Your task to perform on an android device: Open the phone app and click the voicemail tab. Image 0: 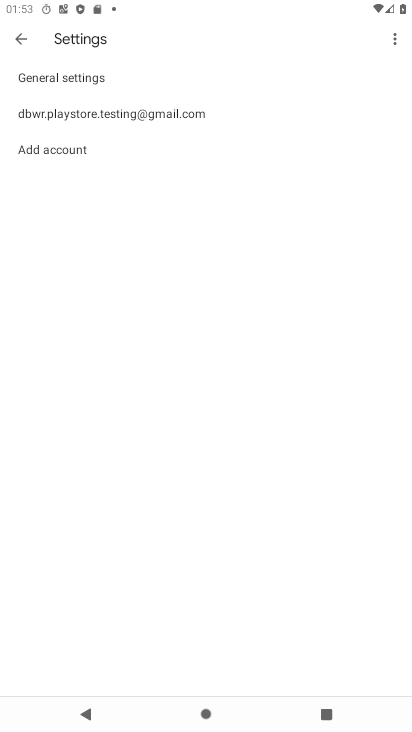
Step 0: press home button
Your task to perform on an android device: Open the phone app and click the voicemail tab. Image 1: 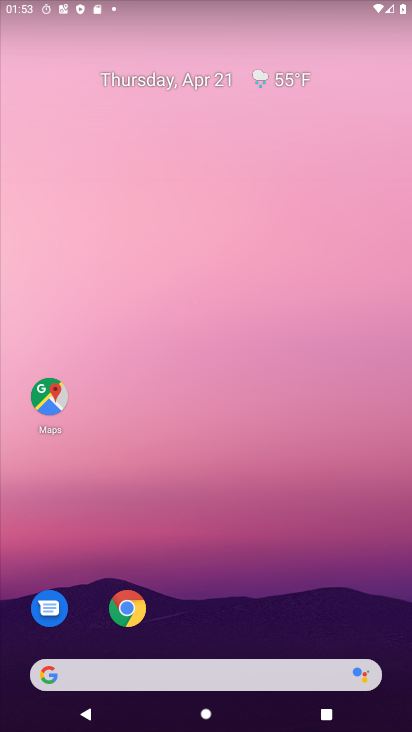
Step 1: drag from (201, 619) to (205, 166)
Your task to perform on an android device: Open the phone app and click the voicemail tab. Image 2: 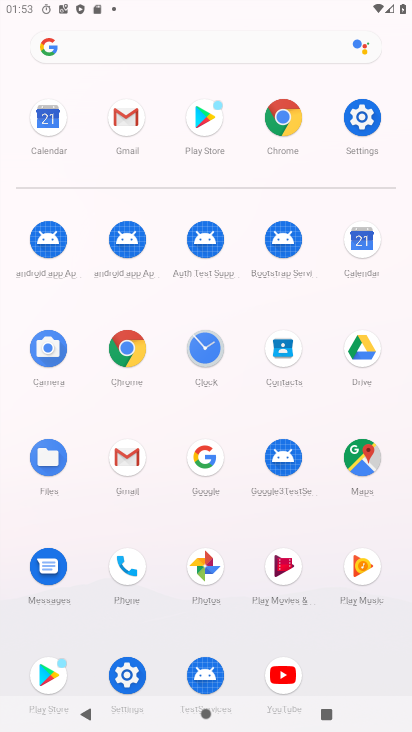
Step 2: click (123, 572)
Your task to perform on an android device: Open the phone app and click the voicemail tab. Image 3: 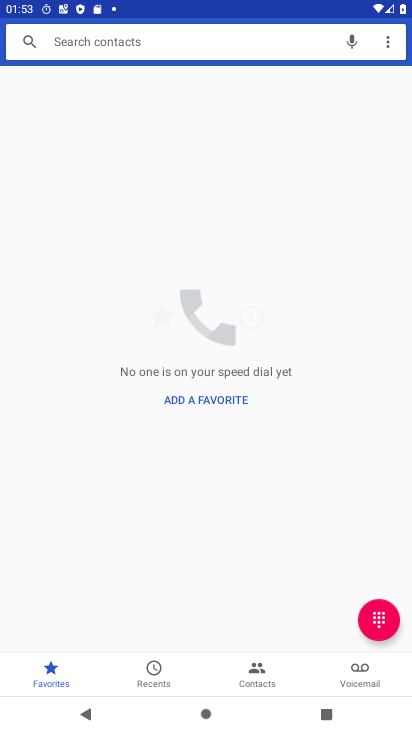
Step 3: click (360, 675)
Your task to perform on an android device: Open the phone app and click the voicemail tab. Image 4: 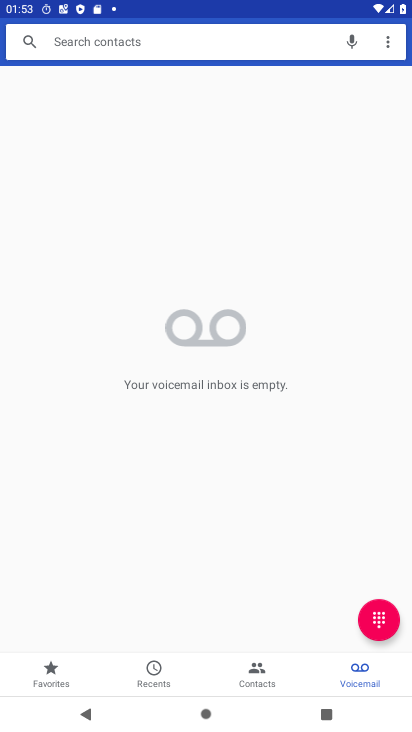
Step 4: task complete